Your task to perform on an android device: turn on the 12-hour format for clock Image 0: 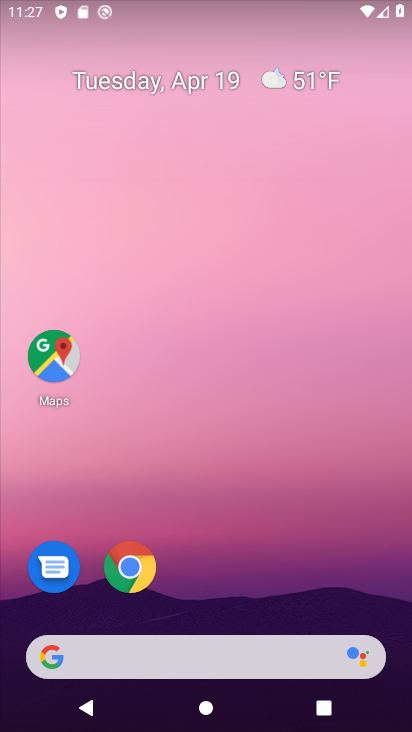
Step 0: drag from (209, 599) to (349, 28)
Your task to perform on an android device: turn on the 12-hour format for clock Image 1: 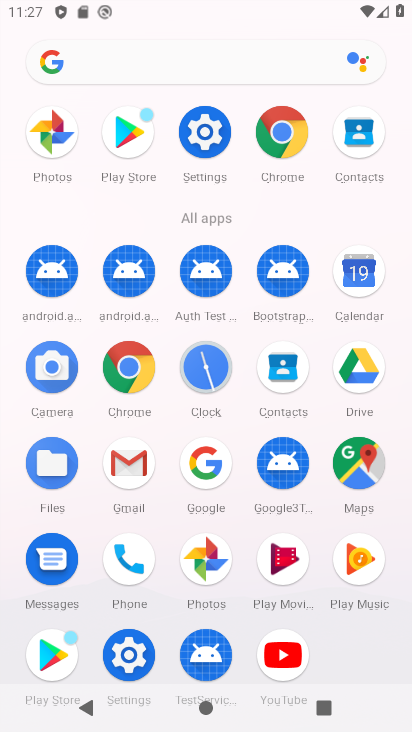
Step 1: click (133, 646)
Your task to perform on an android device: turn on the 12-hour format for clock Image 2: 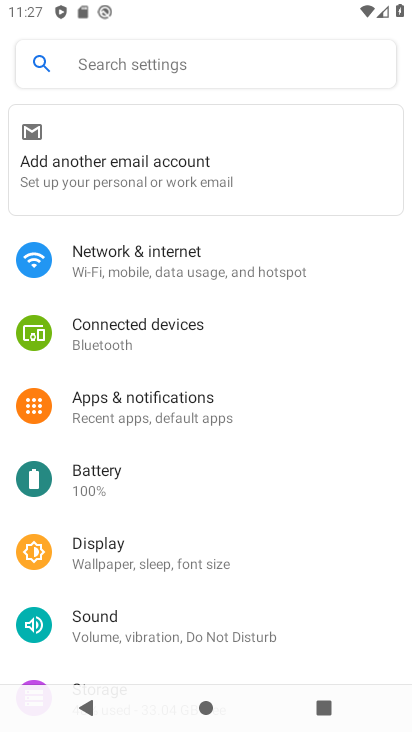
Step 2: drag from (133, 603) to (259, 119)
Your task to perform on an android device: turn on the 12-hour format for clock Image 3: 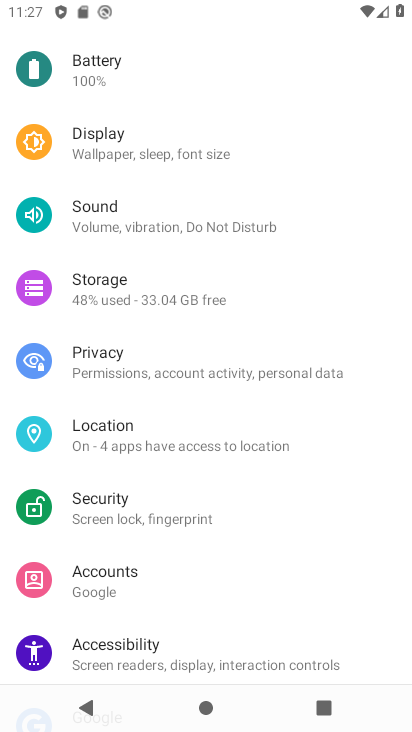
Step 3: drag from (168, 562) to (288, 104)
Your task to perform on an android device: turn on the 12-hour format for clock Image 4: 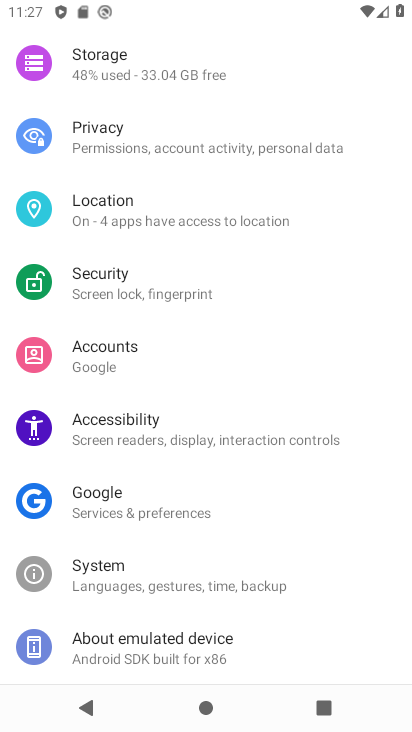
Step 4: click (163, 575)
Your task to perform on an android device: turn on the 12-hour format for clock Image 5: 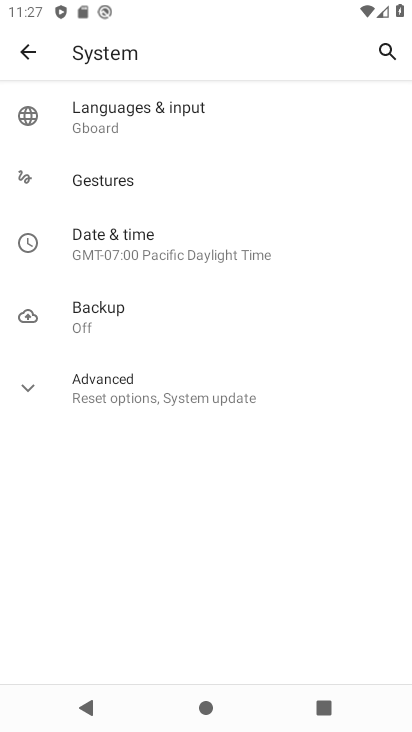
Step 5: click (166, 251)
Your task to perform on an android device: turn on the 12-hour format for clock Image 6: 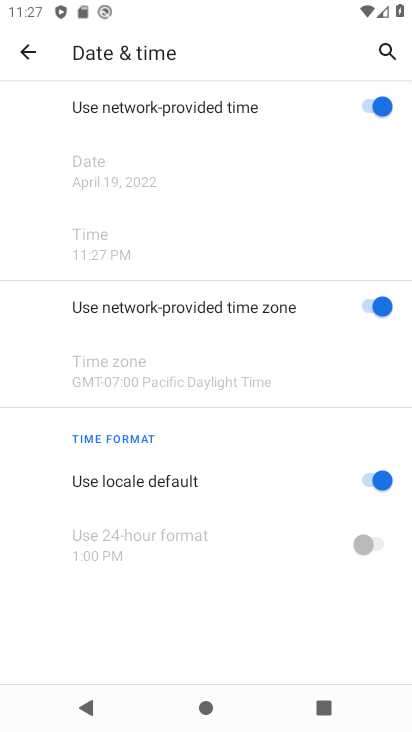
Step 6: task complete